Your task to perform on an android device: turn off airplane mode Image 0: 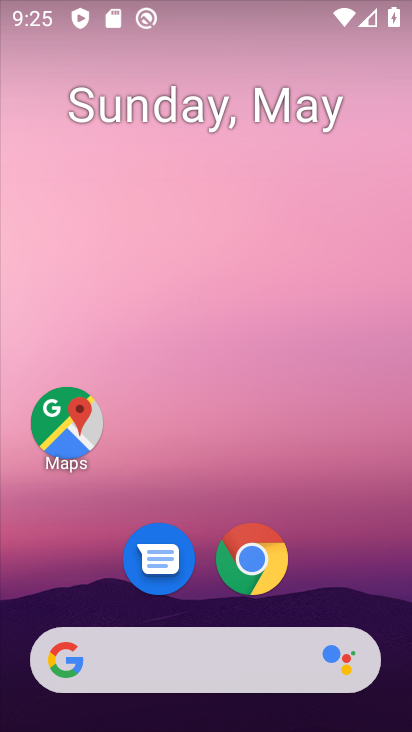
Step 0: press home button
Your task to perform on an android device: turn off airplane mode Image 1: 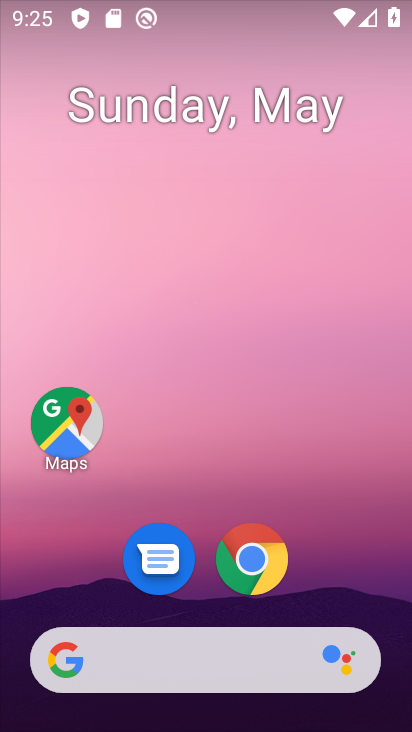
Step 1: drag from (201, 7) to (229, 573)
Your task to perform on an android device: turn off airplane mode Image 2: 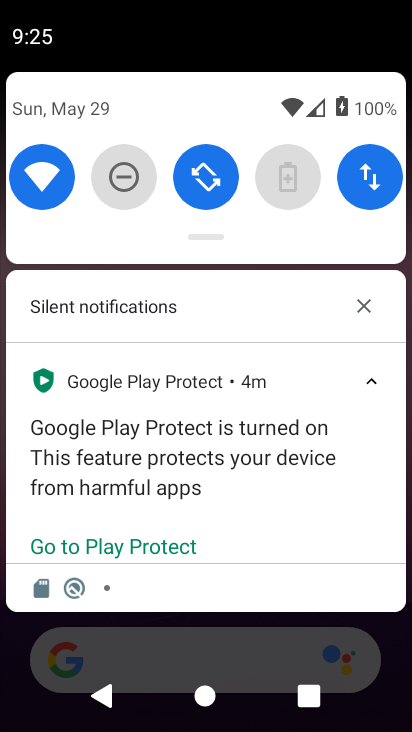
Step 2: click (201, 242)
Your task to perform on an android device: turn off airplane mode Image 3: 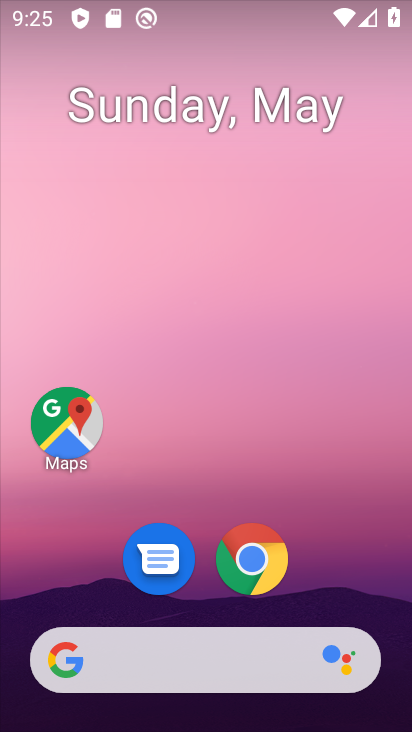
Step 3: task complete